Your task to perform on an android device: turn notification dots off Image 0: 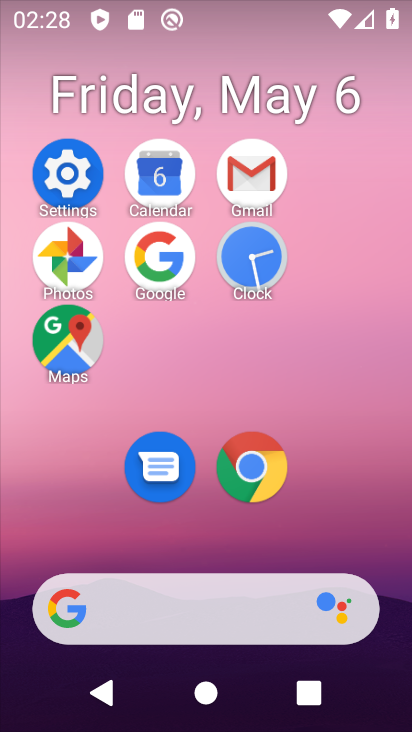
Step 0: click (93, 185)
Your task to perform on an android device: turn notification dots off Image 1: 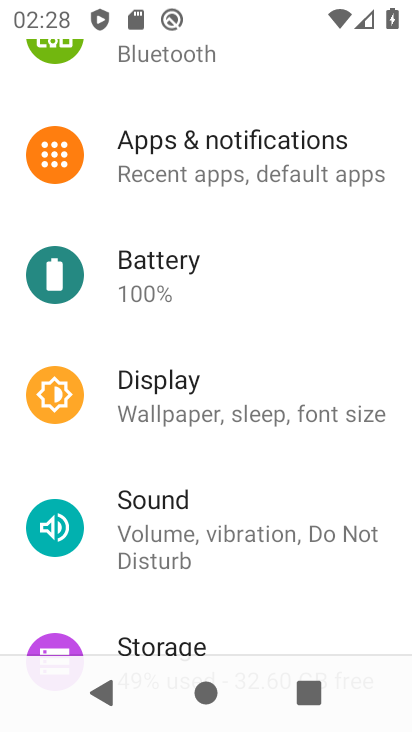
Step 1: click (191, 138)
Your task to perform on an android device: turn notification dots off Image 2: 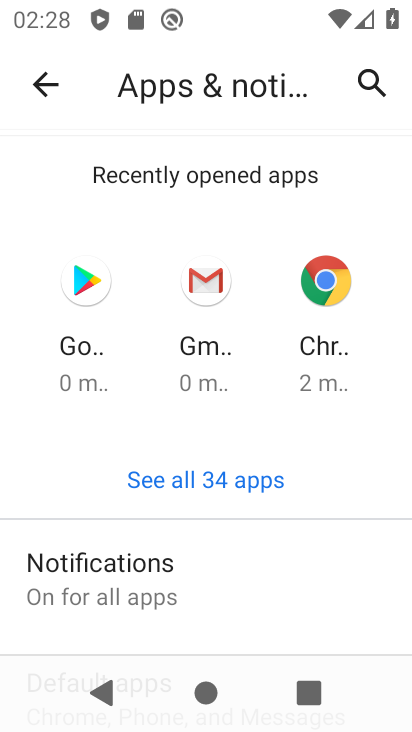
Step 2: drag from (233, 571) to (270, 168)
Your task to perform on an android device: turn notification dots off Image 3: 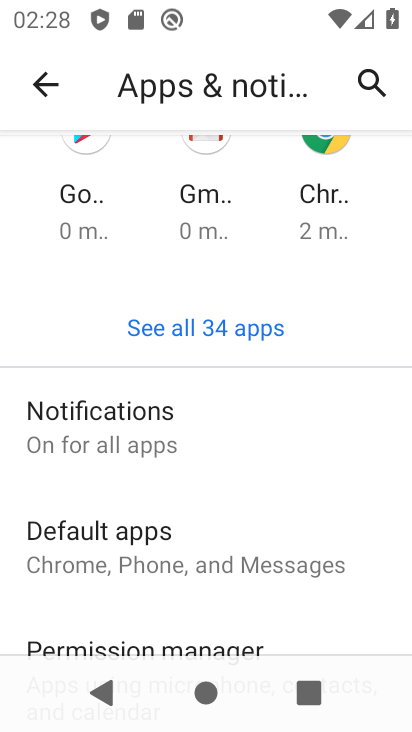
Step 3: click (183, 414)
Your task to perform on an android device: turn notification dots off Image 4: 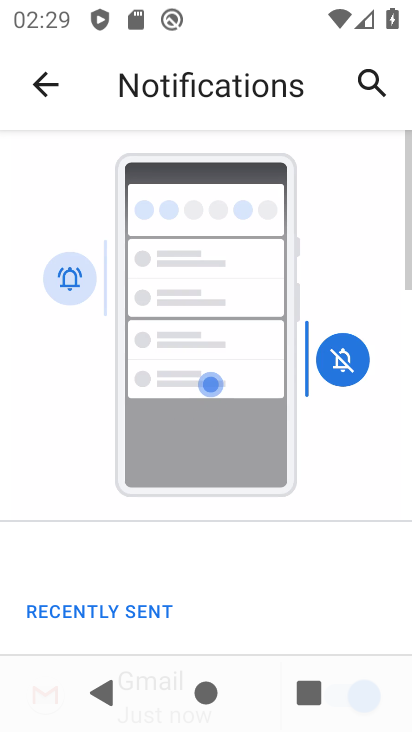
Step 4: drag from (210, 574) to (213, 218)
Your task to perform on an android device: turn notification dots off Image 5: 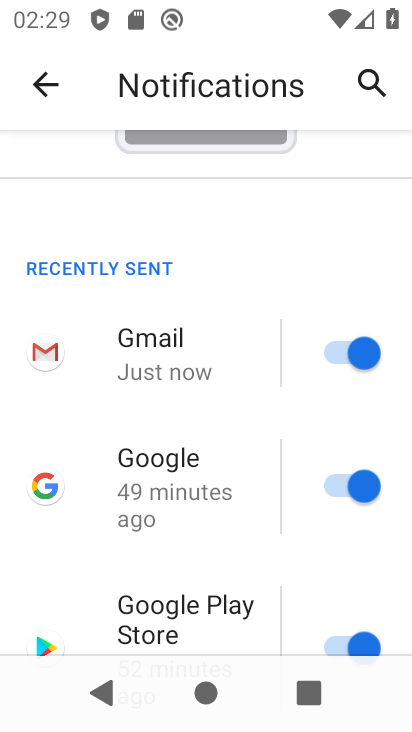
Step 5: drag from (238, 542) to (219, 156)
Your task to perform on an android device: turn notification dots off Image 6: 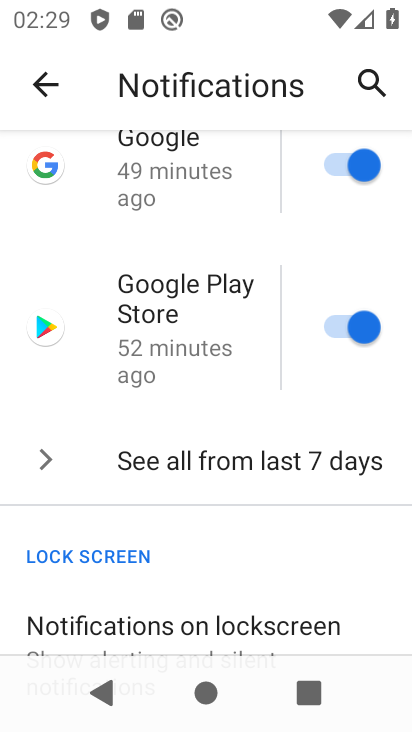
Step 6: drag from (241, 543) to (219, 214)
Your task to perform on an android device: turn notification dots off Image 7: 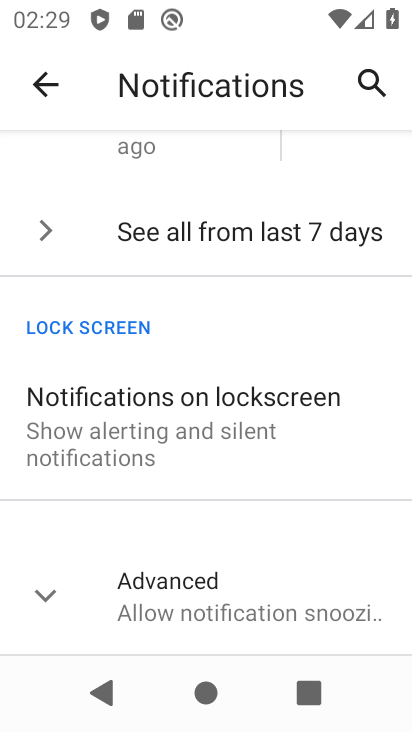
Step 7: click (152, 569)
Your task to perform on an android device: turn notification dots off Image 8: 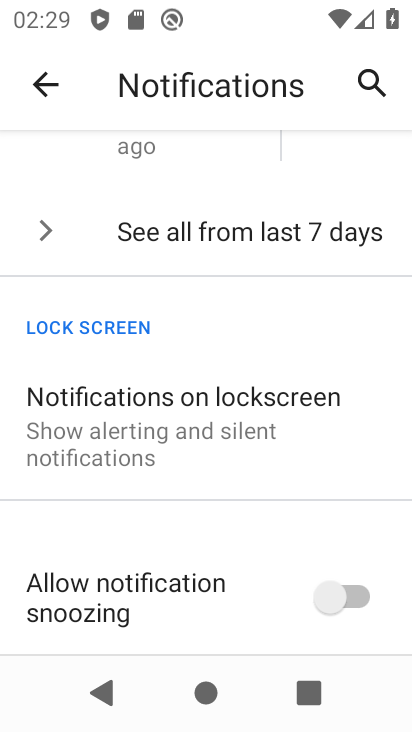
Step 8: drag from (232, 629) to (225, 191)
Your task to perform on an android device: turn notification dots off Image 9: 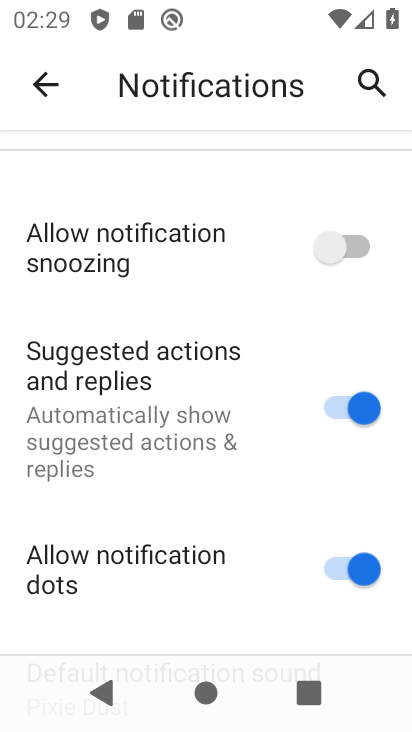
Step 9: click (367, 578)
Your task to perform on an android device: turn notification dots off Image 10: 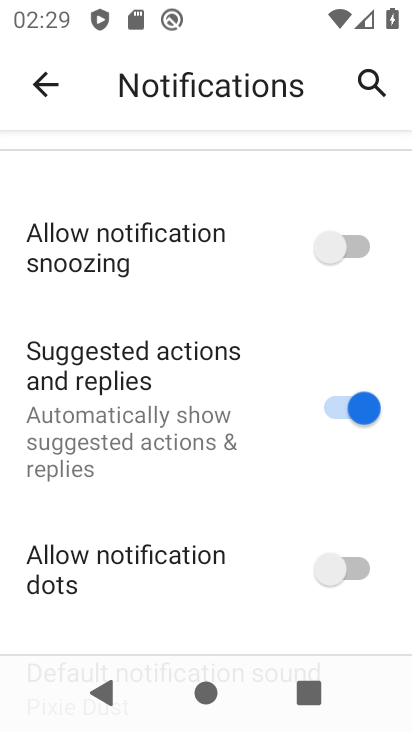
Step 10: task complete